Your task to perform on an android device: Open calendar and show me the first week of next month Image 0: 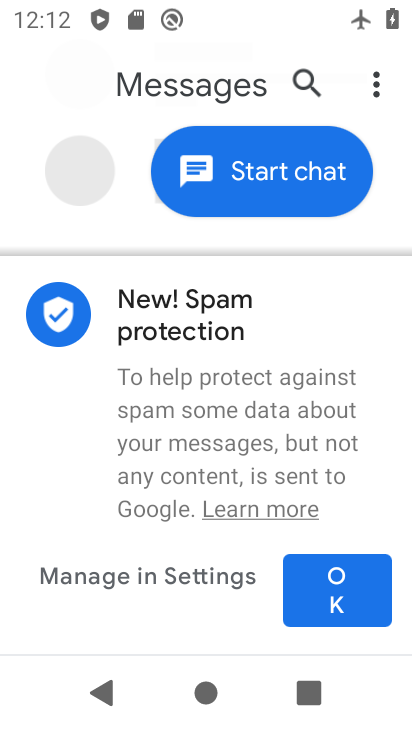
Step 0: press home button
Your task to perform on an android device: Open calendar and show me the first week of next month Image 1: 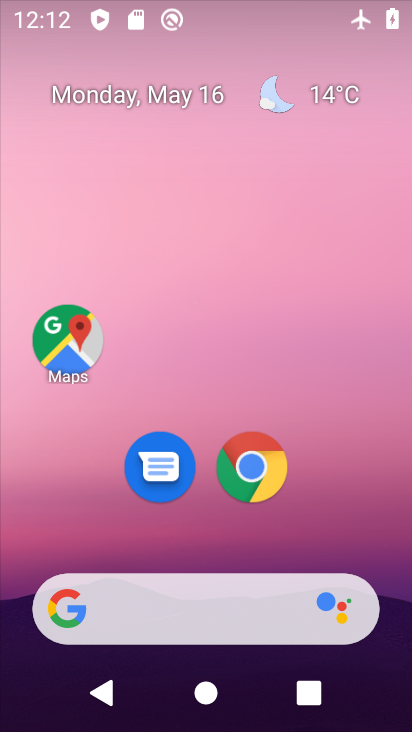
Step 1: drag from (231, 516) to (281, 137)
Your task to perform on an android device: Open calendar and show me the first week of next month Image 2: 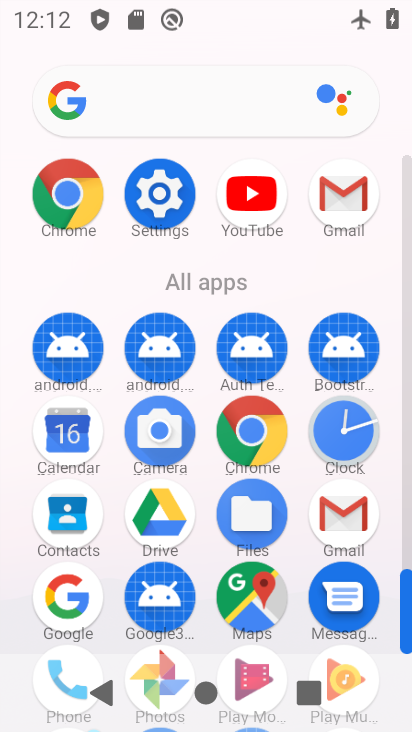
Step 2: click (64, 431)
Your task to perform on an android device: Open calendar and show me the first week of next month Image 3: 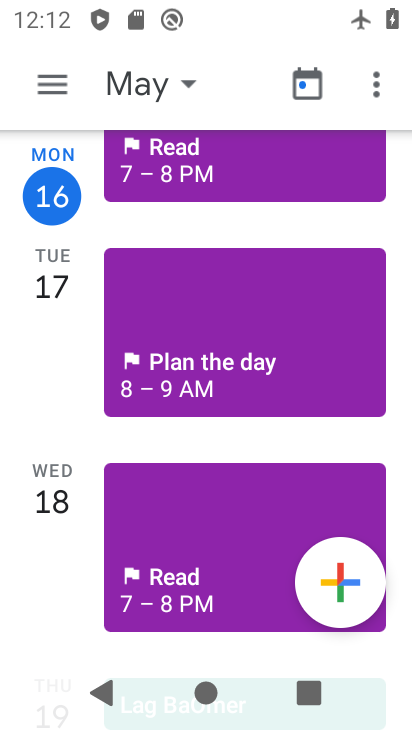
Step 3: click (61, 70)
Your task to perform on an android device: Open calendar and show me the first week of next month Image 4: 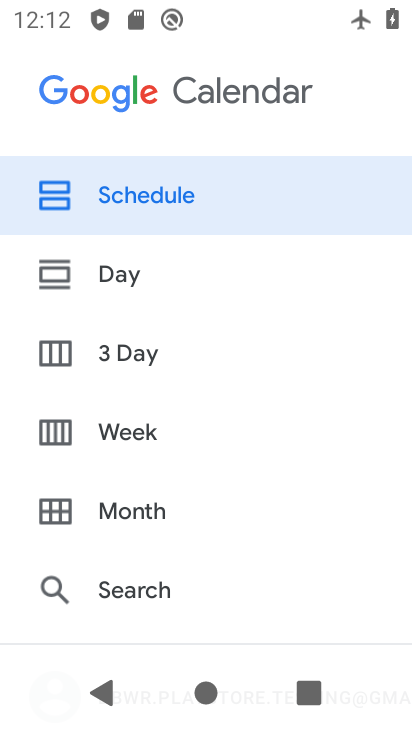
Step 4: click (163, 492)
Your task to perform on an android device: Open calendar and show me the first week of next month Image 5: 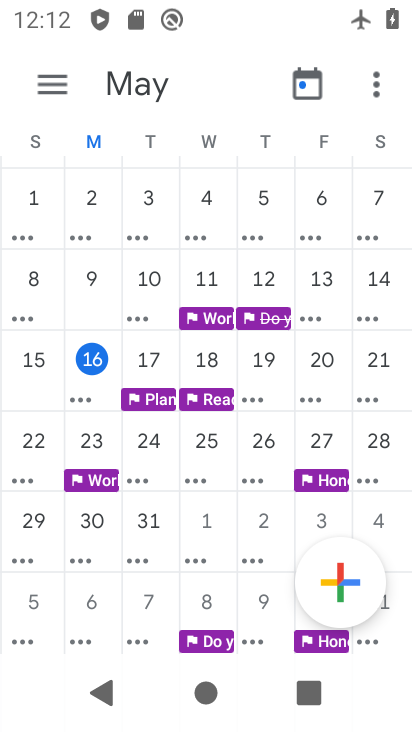
Step 5: task complete